Your task to perform on an android device: Search for pizza restaurants on Maps Image 0: 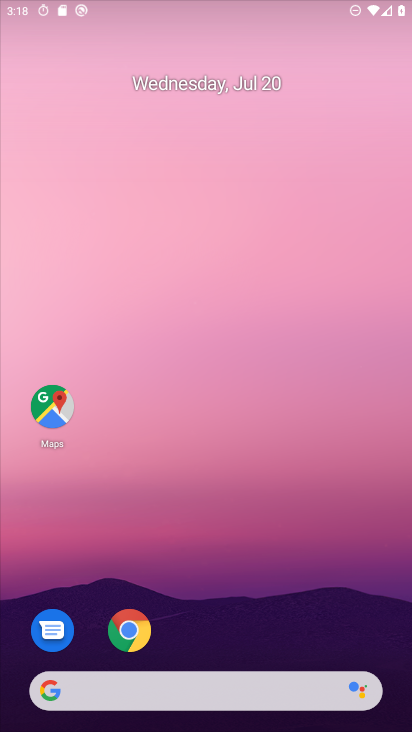
Step 0: drag from (242, 699) to (167, 39)
Your task to perform on an android device: Search for pizza restaurants on Maps Image 1: 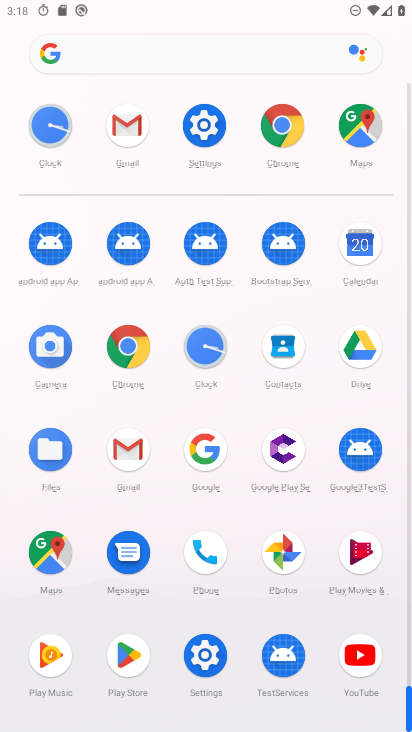
Step 1: click (356, 126)
Your task to perform on an android device: Search for pizza restaurants on Maps Image 2: 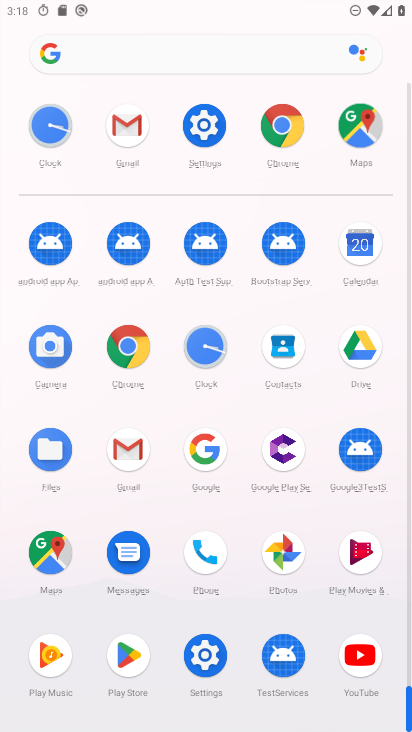
Step 2: click (357, 126)
Your task to perform on an android device: Search for pizza restaurants on Maps Image 3: 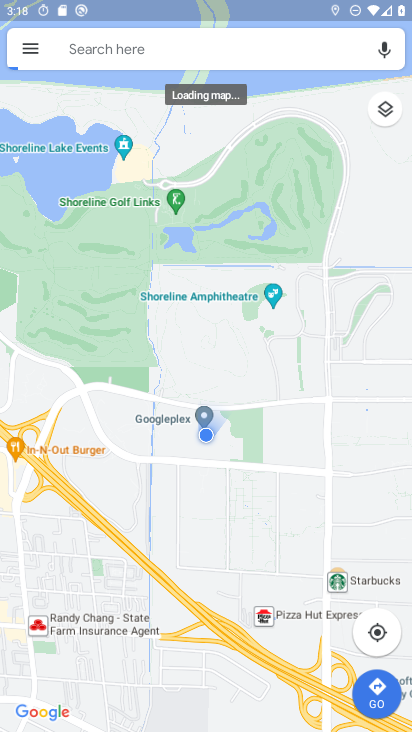
Step 3: click (101, 56)
Your task to perform on an android device: Search for pizza restaurants on Maps Image 4: 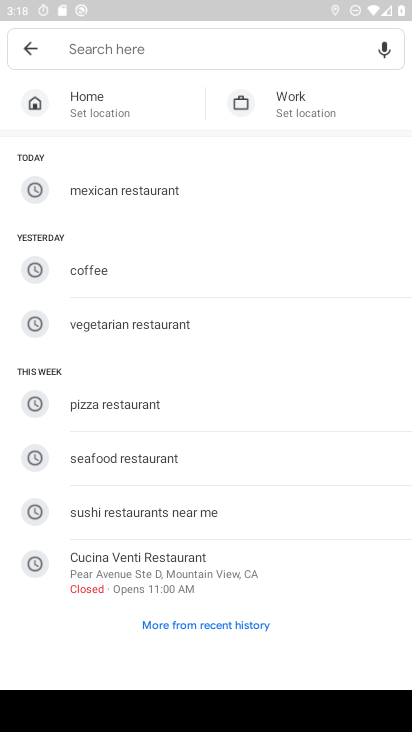
Step 4: type "pizza restaurants"
Your task to perform on an android device: Search for pizza restaurants on Maps Image 5: 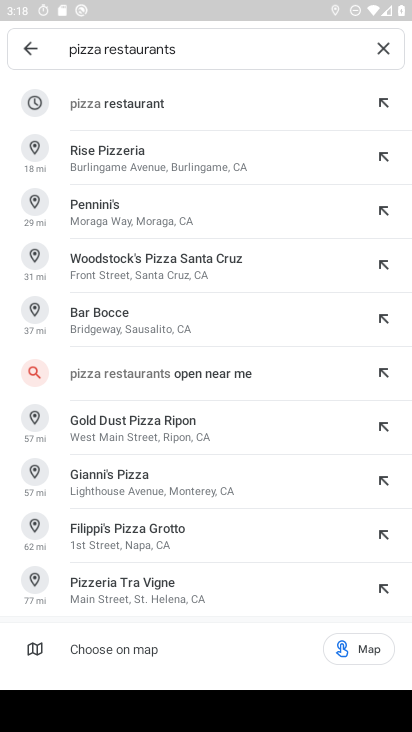
Step 5: click (141, 98)
Your task to perform on an android device: Search for pizza restaurants on Maps Image 6: 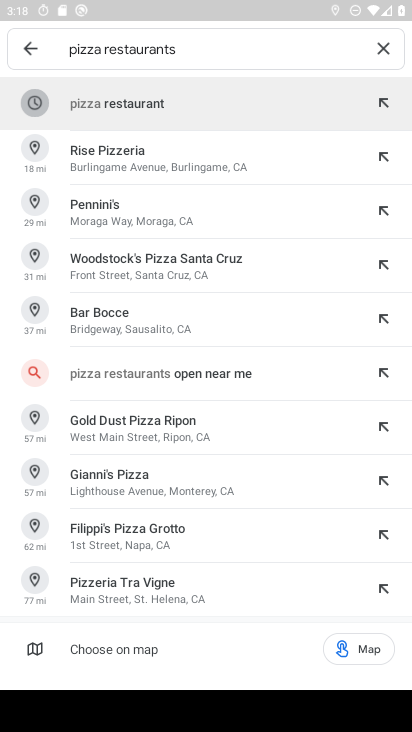
Step 6: click (136, 98)
Your task to perform on an android device: Search for pizza restaurants on Maps Image 7: 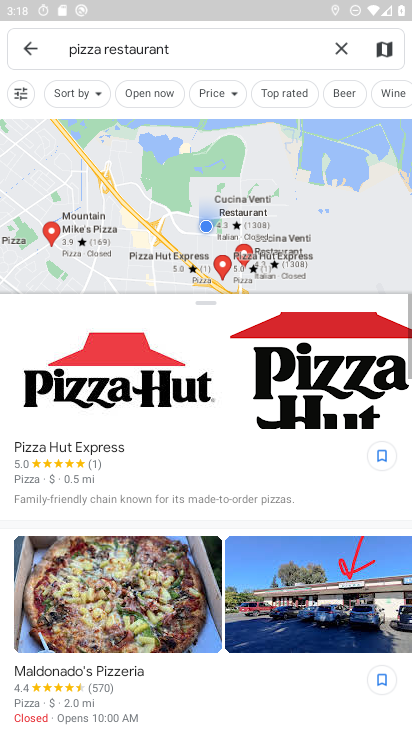
Step 7: task complete